Your task to perform on an android device: Toggle the flashlight Image 0: 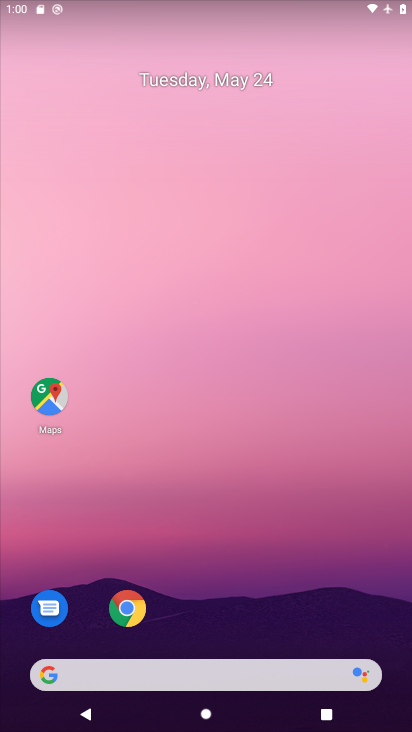
Step 0: drag from (293, 586) to (282, 10)
Your task to perform on an android device: Toggle the flashlight Image 1: 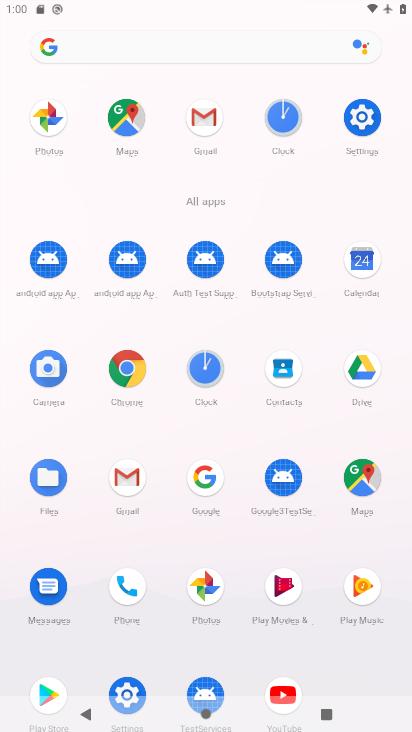
Step 1: click (369, 184)
Your task to perform on an android device: Toggle the flashlight Image 2: 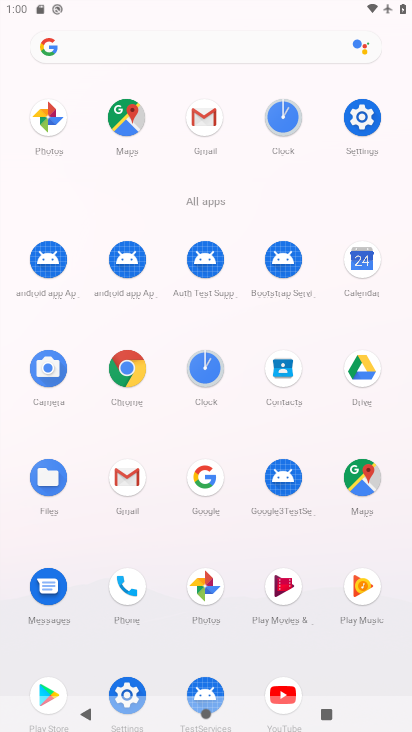
Step 2: click (380, 143)
Your task to perform on an android device: Toggle the flashlight Image 3: 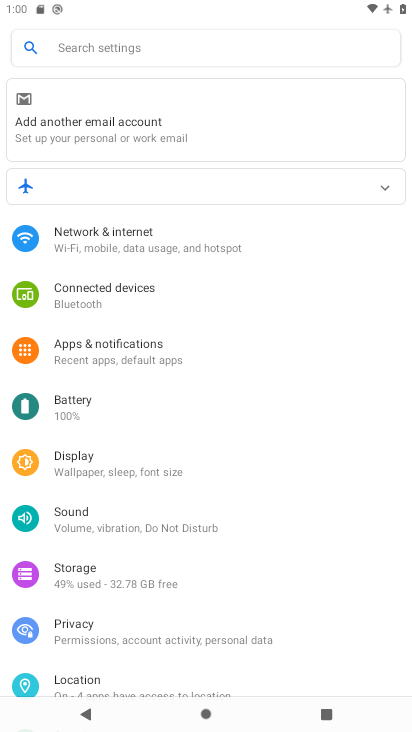
Step 3: task complete